Your task to perform on an android device: Open Google Maps and go to "Timeline" Image 0: 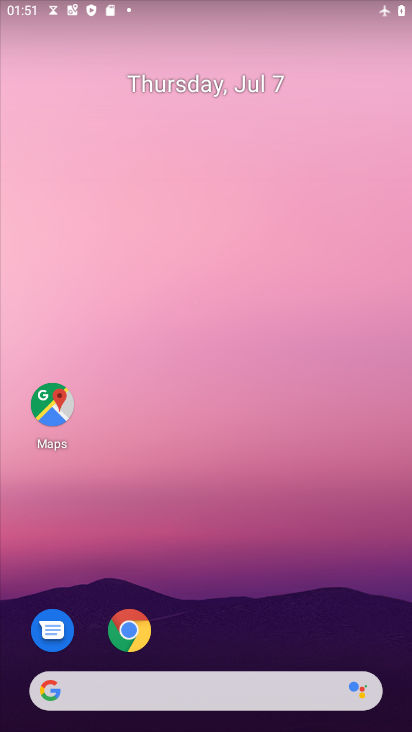
Step 0: click (61, 396)
Your task to perform on an android device: Open Google Maps and go to "Timeline" Image 1: 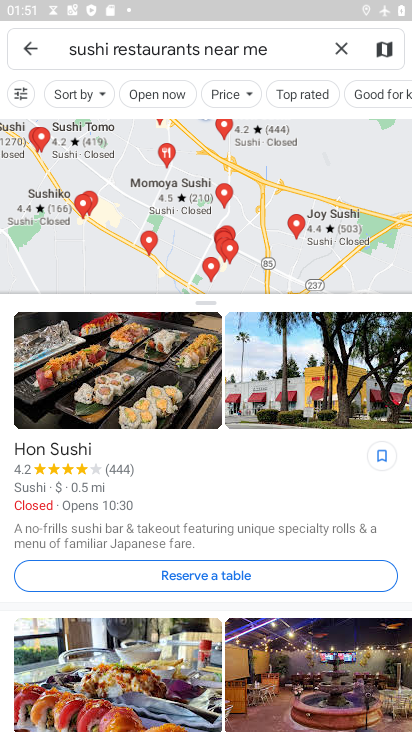
Step 1: click (26, 53)
Your task to perform on an android device: Open Google Maps and go to "Timeline" Image 2: 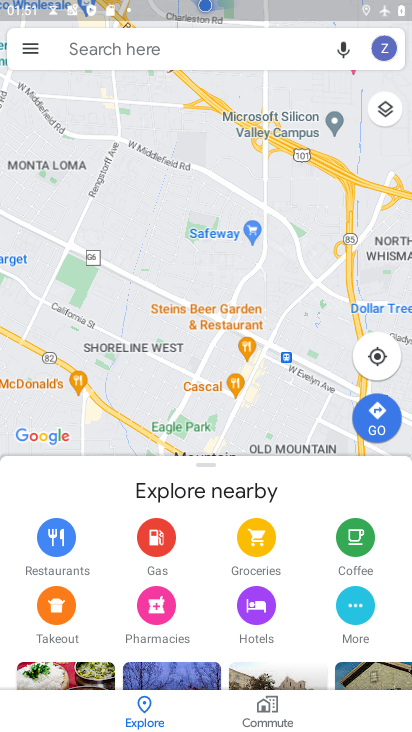
Step 2: click (36, 53)
Your task to perform on an android device: Open Google Maps and go to "Timeline" Image 3: 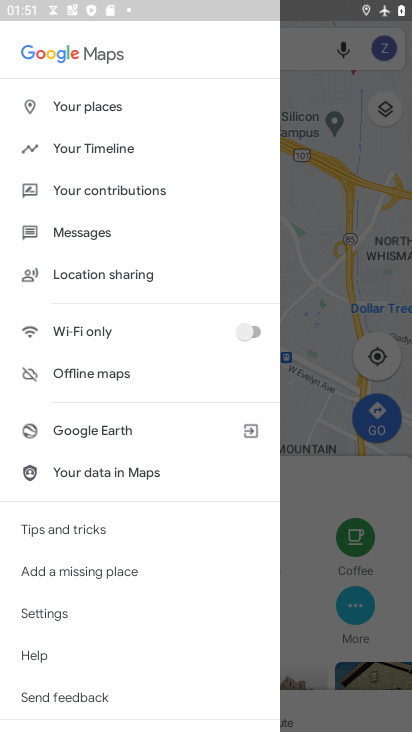
Step 3: click (93, 146)
Your task to perform on an android device: Open Google Maps and go to "Timeline" Image 4: 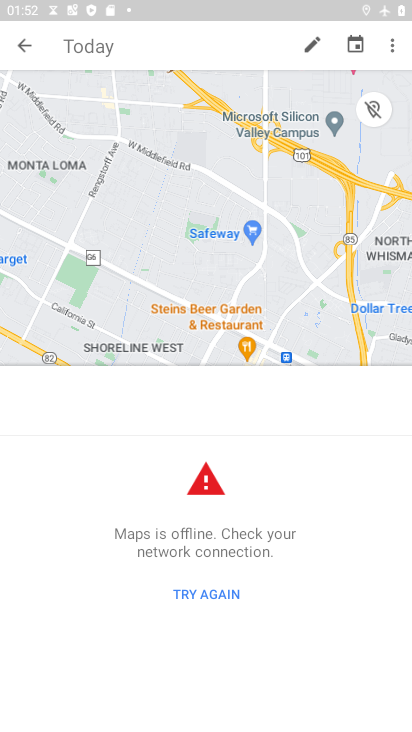
Step 4: task complete